Your task to perform on an android device: toggle notification dots Image 0: 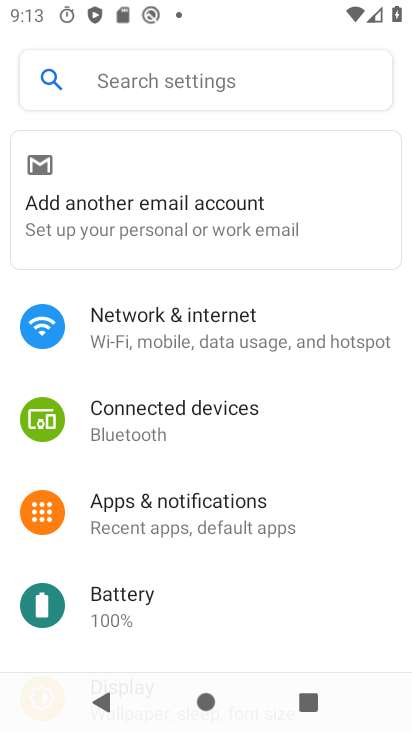
Step 0: drag from (183, 621) to (200, 200)
Your task to perform on an android device: toggle notification dots Image 1: 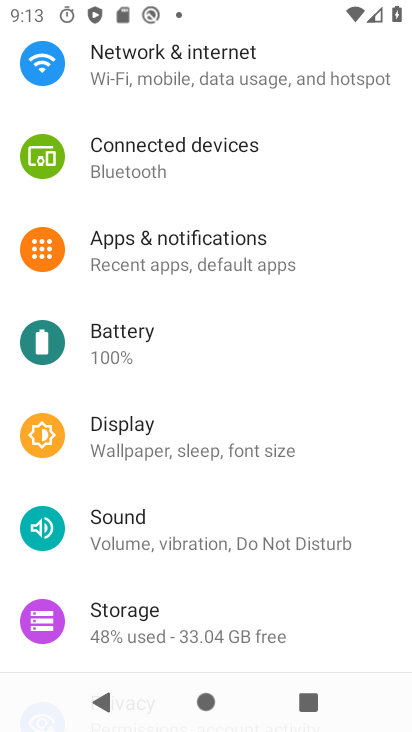
Step 1: click (223, 254)
Your task to perform on an android device: toggle notification dots Image 2: 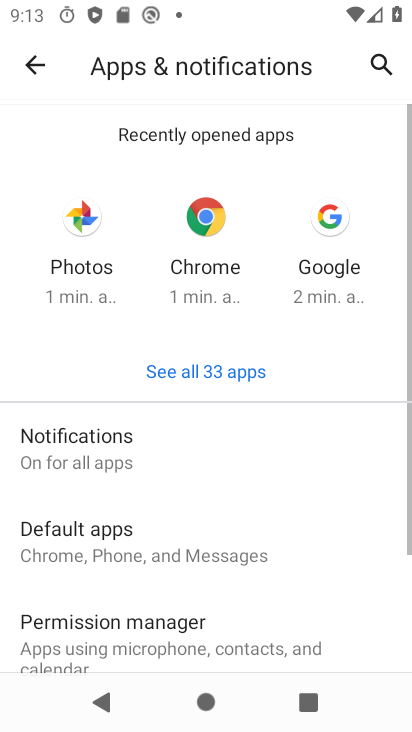
Step 2: click (163, 451)
Your task to perform on an android device: toggle notification dots Image 3: 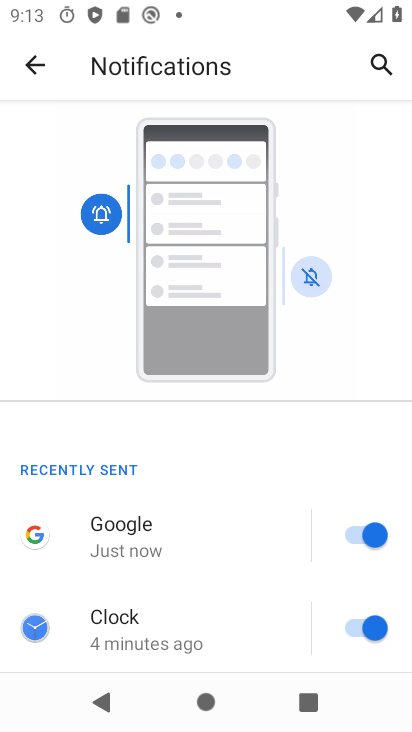
Step 3: drag from (214, 615) to (225, 113)
Your task to perform on an android device: toggle notification dots Image 4: 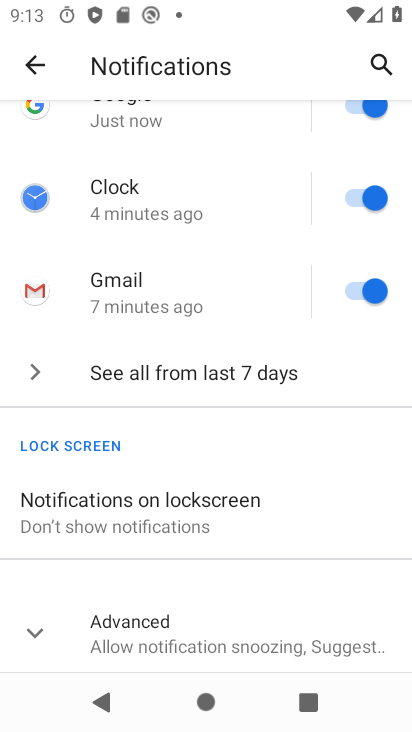
Step 4: click (227, 634)
Your task to perform on an android device: toggle notification dots Image 5: 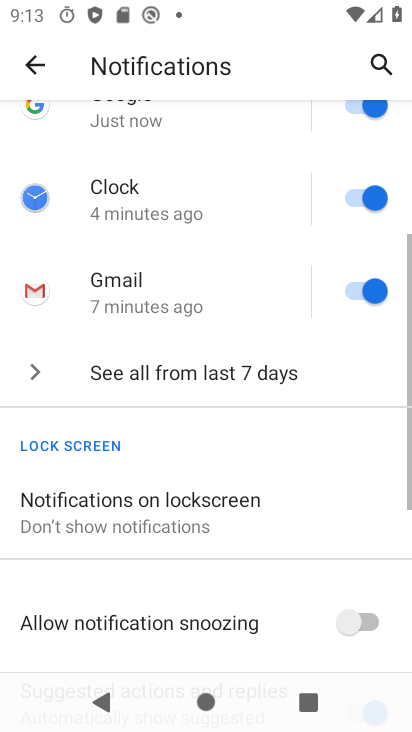
Step 5: drag from (217, 538) to (226, 200)
Your task to perform on an android device: toggle notification dots Image 6: 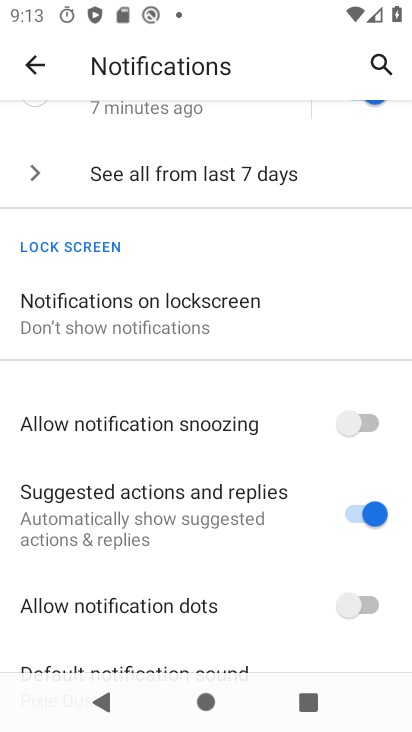
Step 6: click (365, 596)
Your task to perform on an android device: toggle notification dots Image 7: 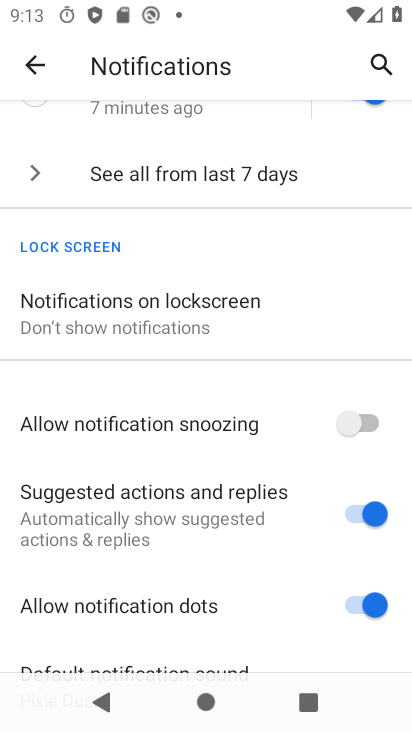
Step 7: task complete